Your task to perform on an android device: Open calendar and show me the first week of next month Image 0: 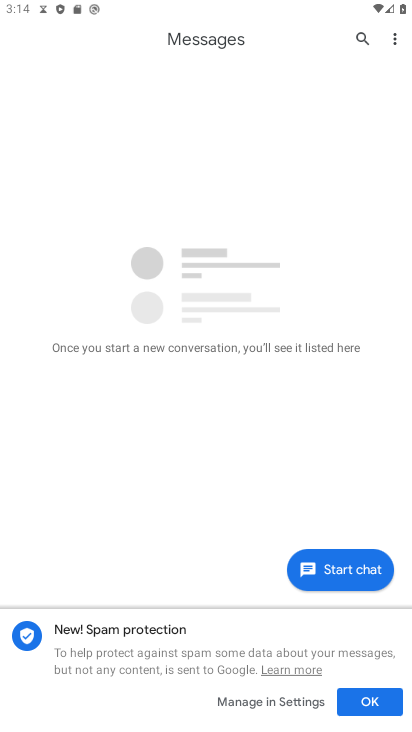
Step 0: press home button
Your task to perform on an android device: Open calendar and show me the first week of next month Image 1: 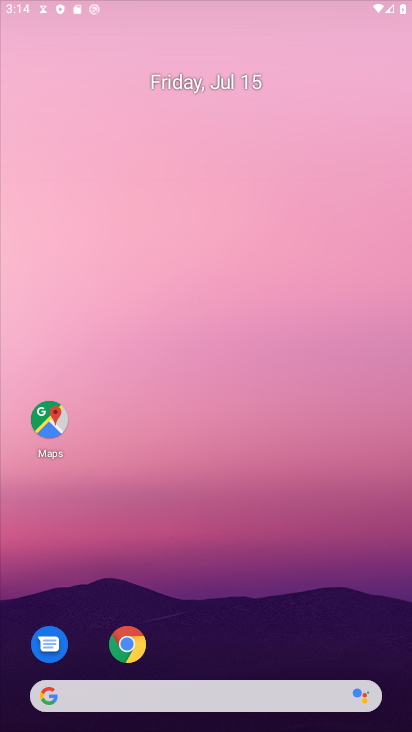
Step 1: drag from (305, 681) to (405, 495)
Your task to perform on an android device: Open calendar and show me the first week of next month Image 2: 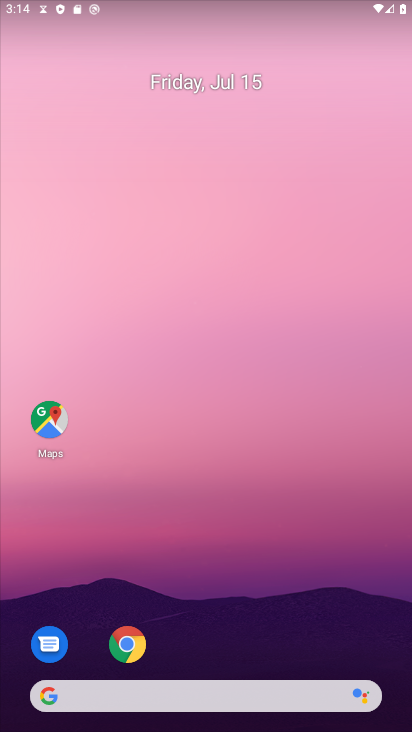
Step 2: click (362, 258)
Your task to perform on an android device: Open calendar and show me the first week of next month Image 3: 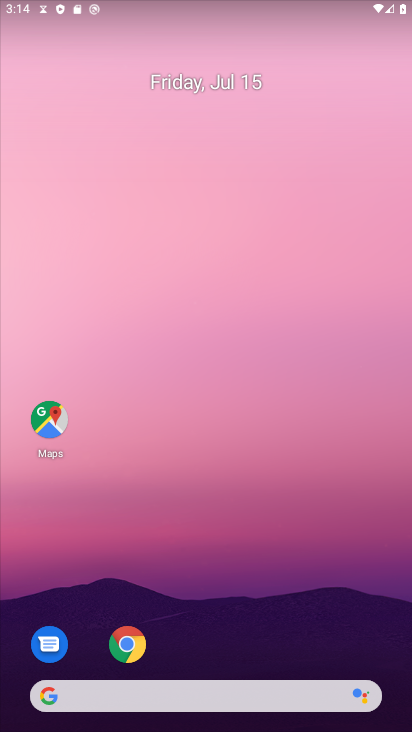
Step 3: drag from (347, 691) to (346, 10)
Your task to perform on an android device: Open calendar and show me the first week of next month Image 4: 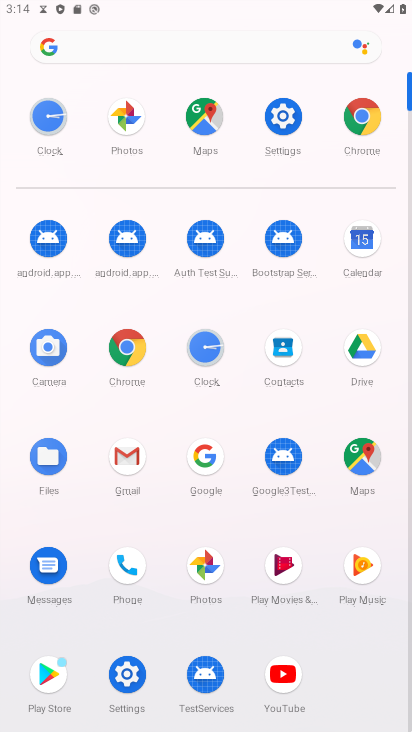
Step 4: click (357, 242)
Your task to perform on an android device: Open calendar and show me the first week of next month Image 5: 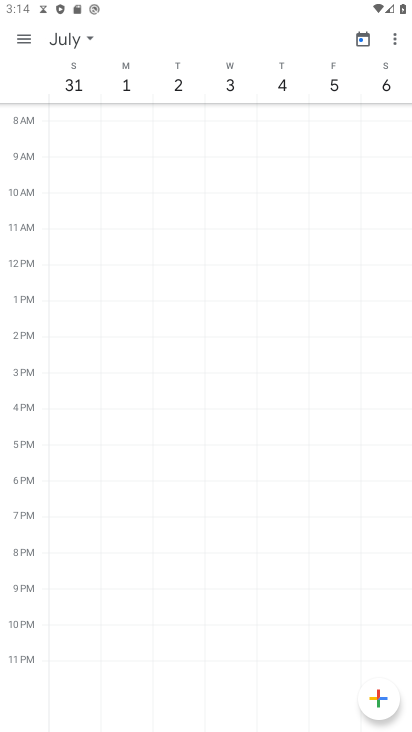
Step 5: click (89, 37)
Your task to perform on an android device: Open calendar and show me the first week of next month Image 6: 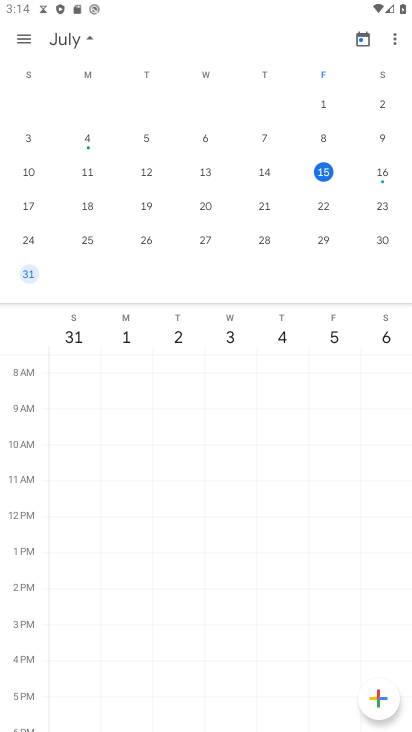
Step 6: drag from (313, 215) to (56, 220)
Your task to perform on an android device: Open calendar and show me the first week of next month Image 7: 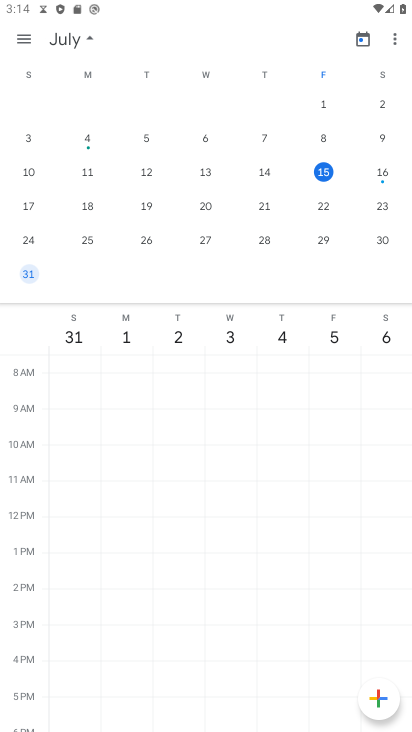
Step 7: drag from (355, 158) to (6, 188)
Your task to perform on an android device: Open calendar and show me the first week of next month Image 8: 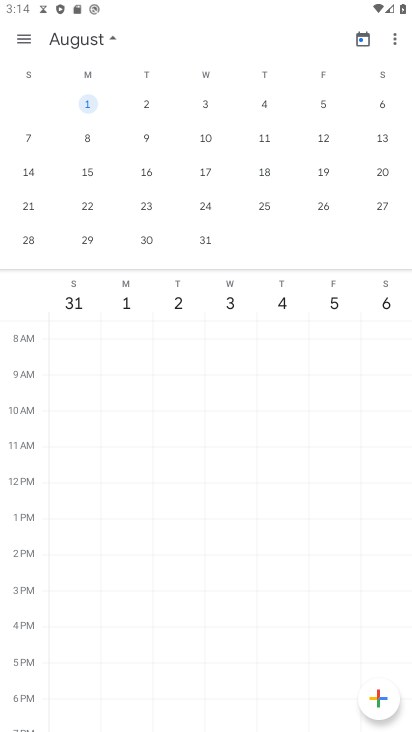
Step 8: click (271, 108)
Your task to perform on an android device: Open calendar and show me the first week of next month Image 9: 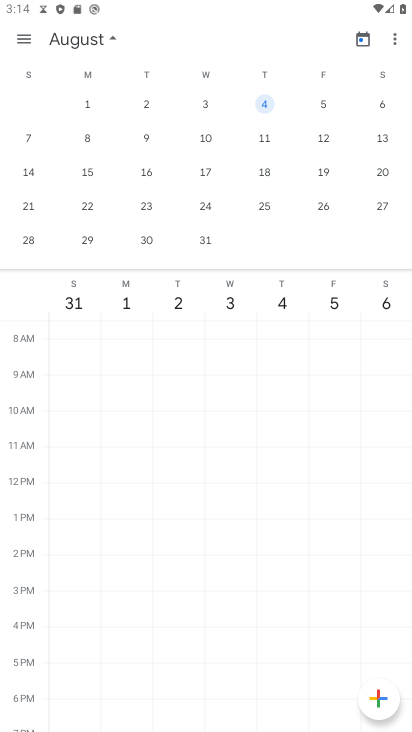
Step 9: task complete